Your task to perform on an android device: Open Google Maps and go to "Timeline" Image 0: 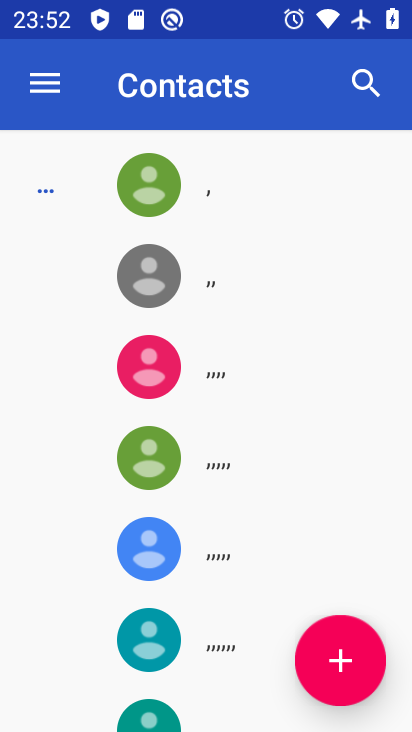
Step 0: press home button
Your task to perform on an android device: Open Google Maps and go to "Timeline" Image 1: 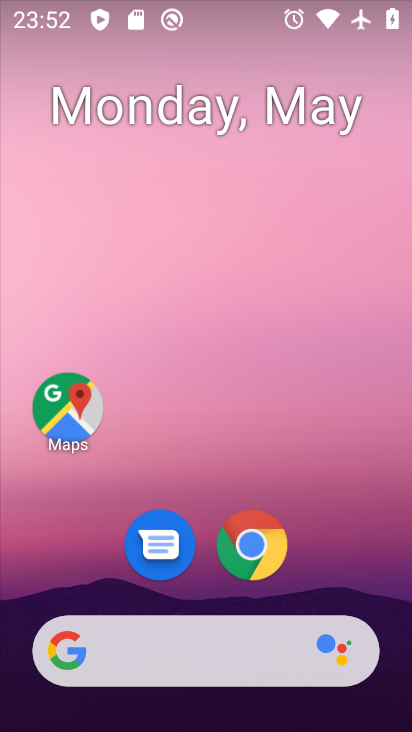
Step 1: drag from (333, 577) to (331, 67)
Your task to perform on an android device: Open Google Maps and go to "Timeline" Image 2: 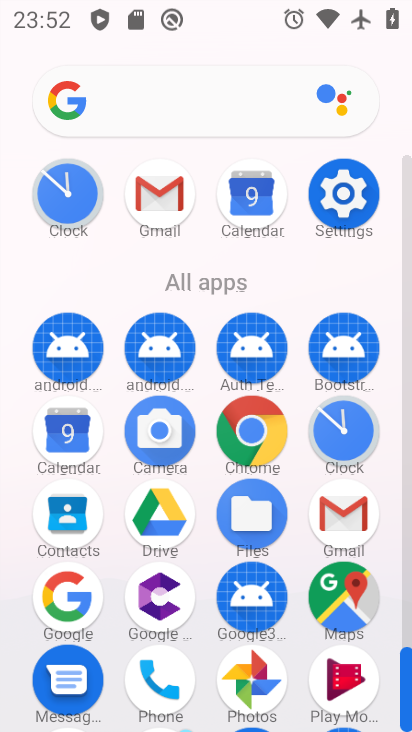
Step 2: click (332, 597)
Your task to perform on an android device: Open Google Maps and go to "Timeline" Image 3: 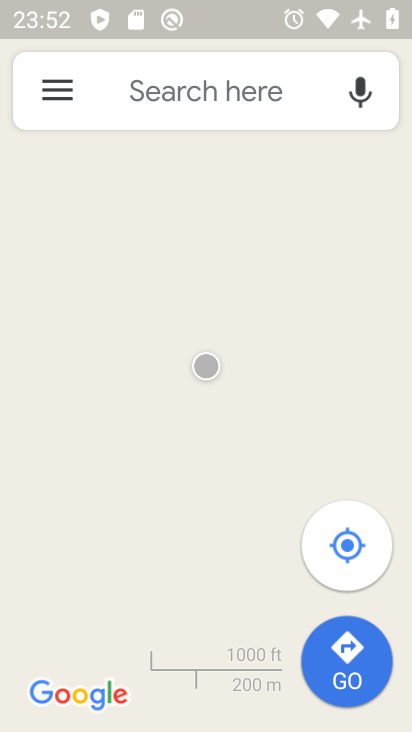
Step 3: click (46, 82)
Your task to perform on an android device: Open Google Maps and go to "Timeline" Image 4: 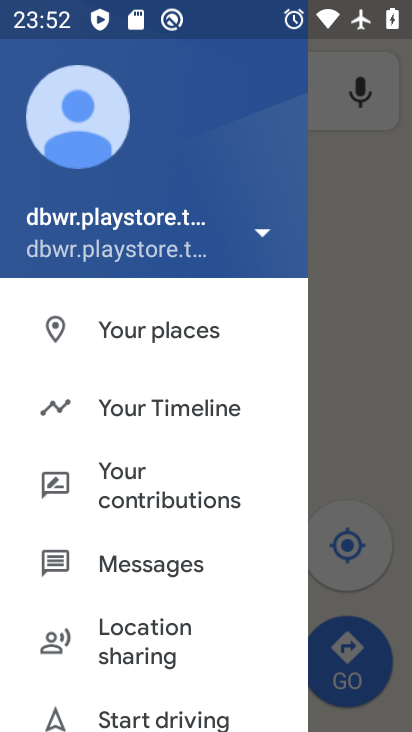
Step 4: click (191, 407)
Your task to perform on an android device: Open Google Maps and go to "Timeline" Image 5: 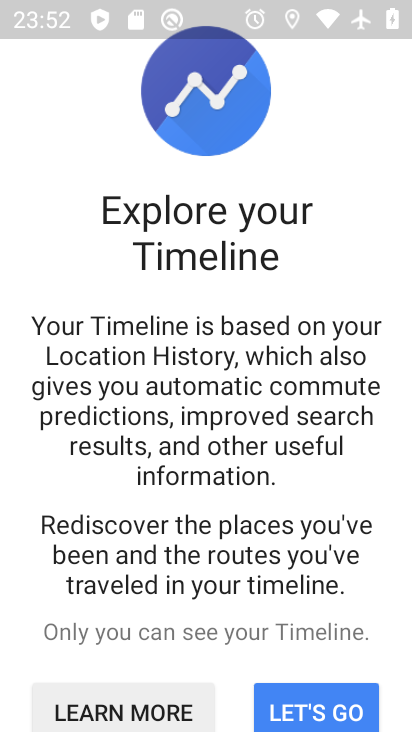
Step 5: click (296, 710)
Your task to perform on an android device: Open Google Maps and go to "Timeline" Image 6: 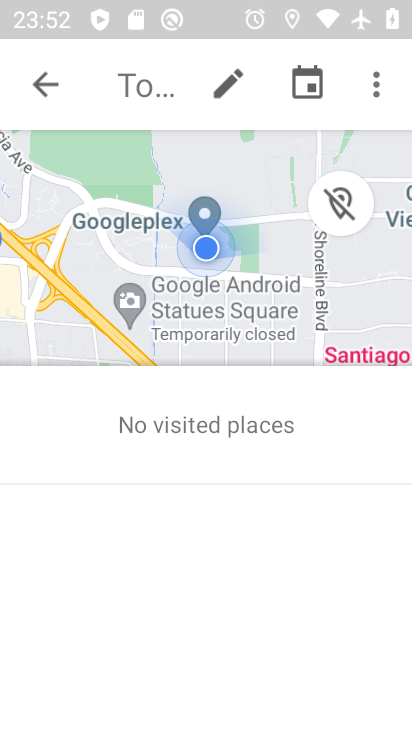
Step 6: task complete